Your task to perform on an android device: Do I have any events this weekend? Image 0: 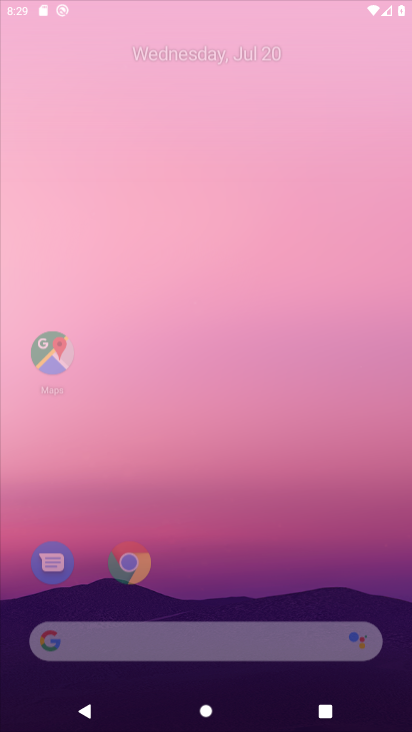
Step 0: press home button
Your task to perform on an android device: Do I have any events this weekend? Image 1: 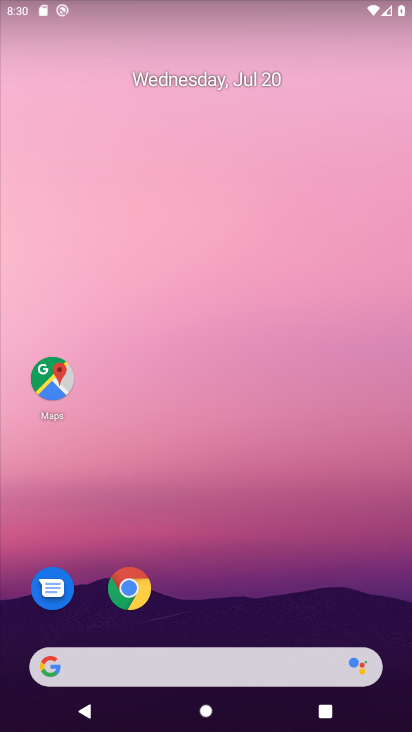
Step 1: drag from (223, 633) to (211, 165)
Your task to perform on an android device: Do I have any events this weekend? Image 2: 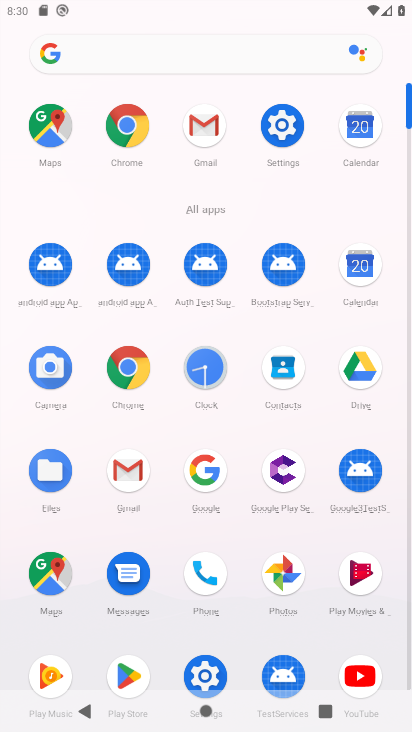
Step 2: click (356, 263)
Your task to perform on an android device: Do I have any events this weekend? Image 3: 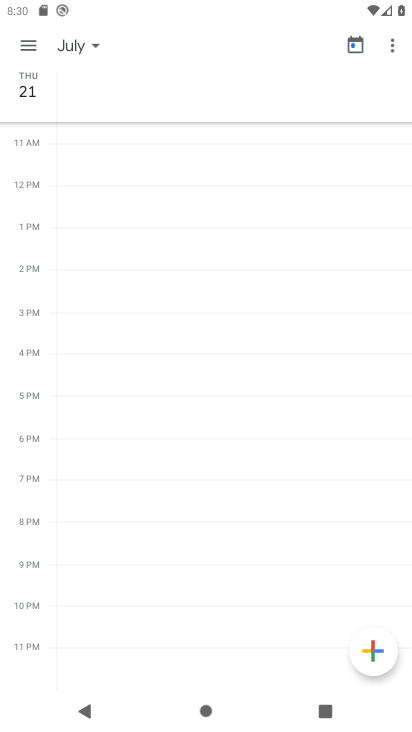
Step 3: click (22, 45)
Your task to perform on an android device: Do I have any events this weekend? Image 4: 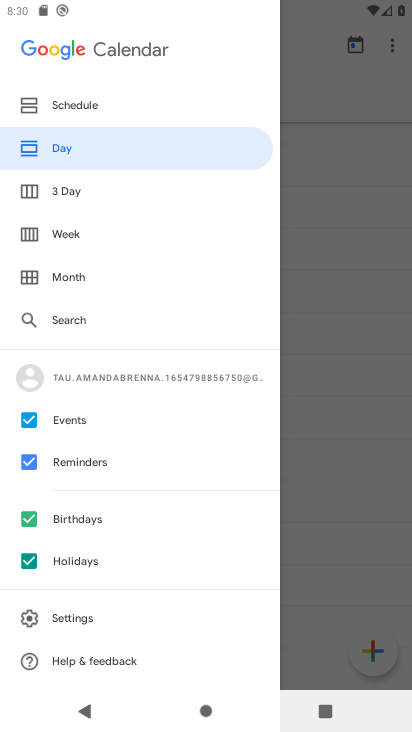
Step 4: click (72, 236)
Your task to perform on an android device: Do I have any events this weekend? Image 5: 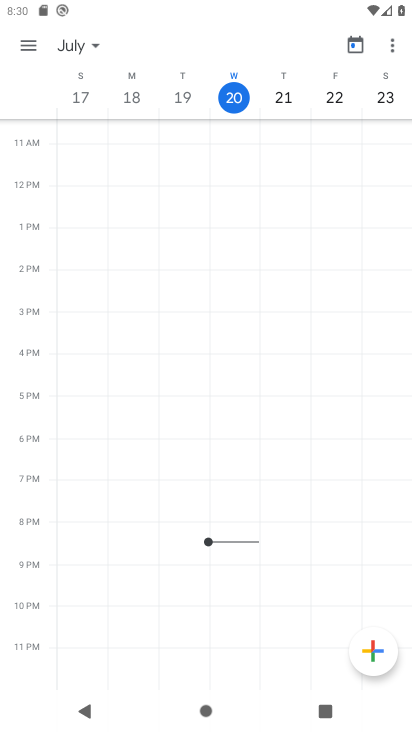
Step 5: click (20, 45)
Your task to perform on an android device: Do I have any events this weekend? Image 6: 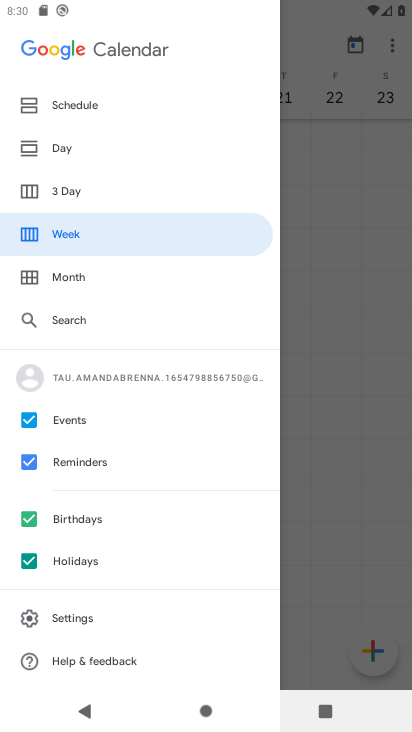
Step 6: click (54, 235)
Your task to perform on an android device: Do I have any events this weekend? Image 7: 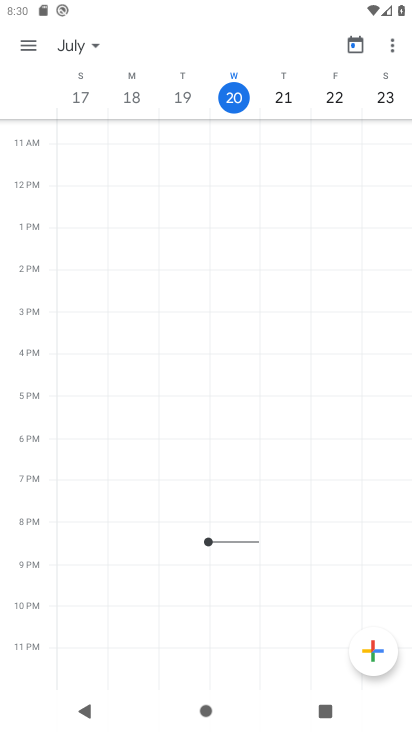
Step 7: click (234, 93)
Your task to perform on an android device: Do I have any events this weekend? Image 8: 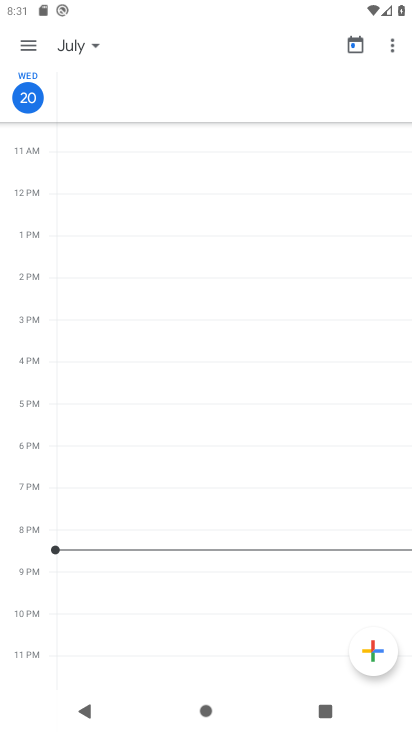
Step 8: task complete